Your task to perform on an android device: open wifi settings Image 0: 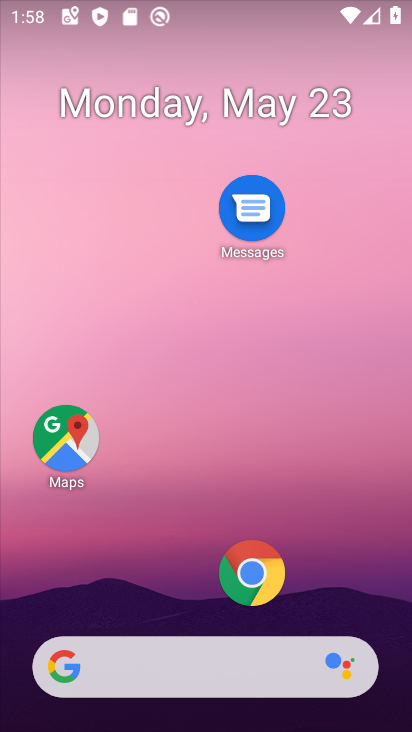
Step 0: drag from (323, 696) to (375, 9)
Your task to perform on an android device: open wifi settings Image 1: 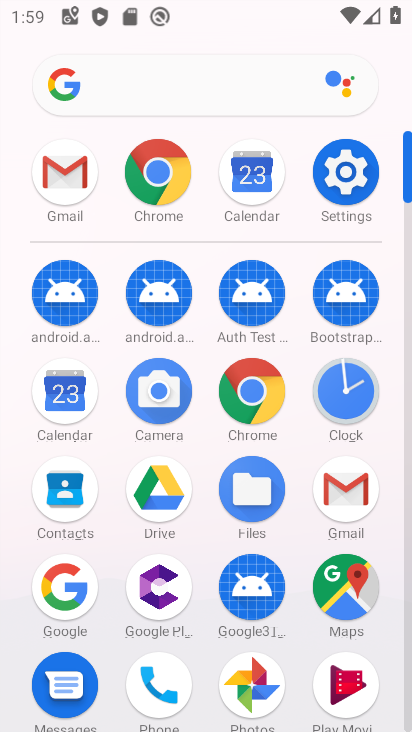
Step 1: click (342, 196)
Your task to perform on an android device: open wifi settings Image 2: 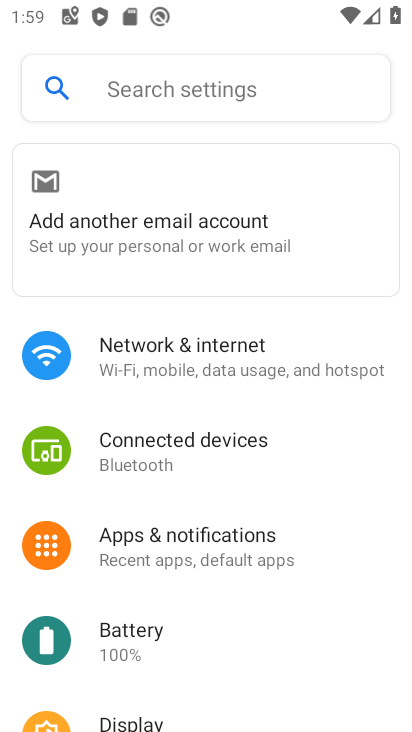
Step 2: click (236, 343)
Your task to perform on an android device: open wifi settings Image 3: 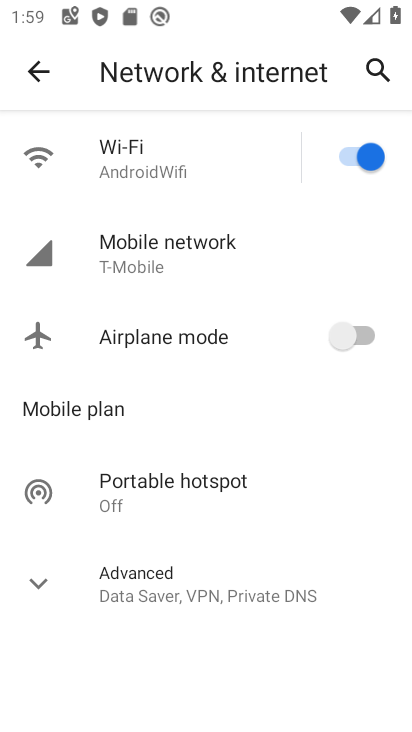
Step 3: click (165, 159)
Your task to perform on an android device: open wifi settings Image 4: 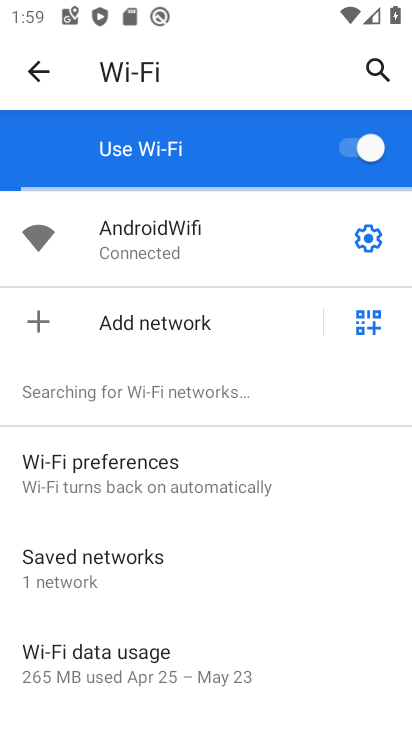
Step 4: task complete